Your task to perform on an android device: How much does a 3 bedroom apartment rent for in Seattle? Image 0: 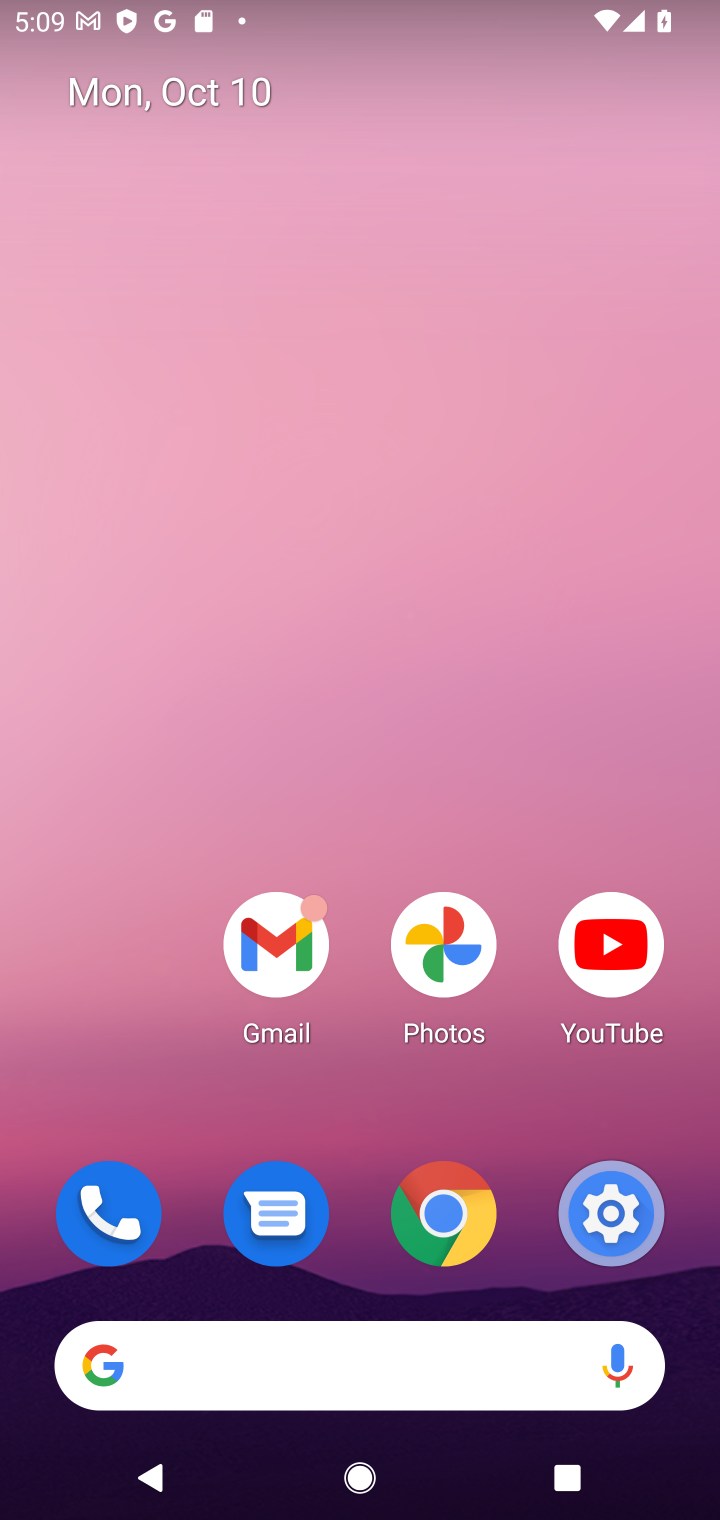
Step 0: click (408, 1368)
Your task to perform on an android device: How much does a 3 bedroom apartment rent for in Seattle? Image 1: 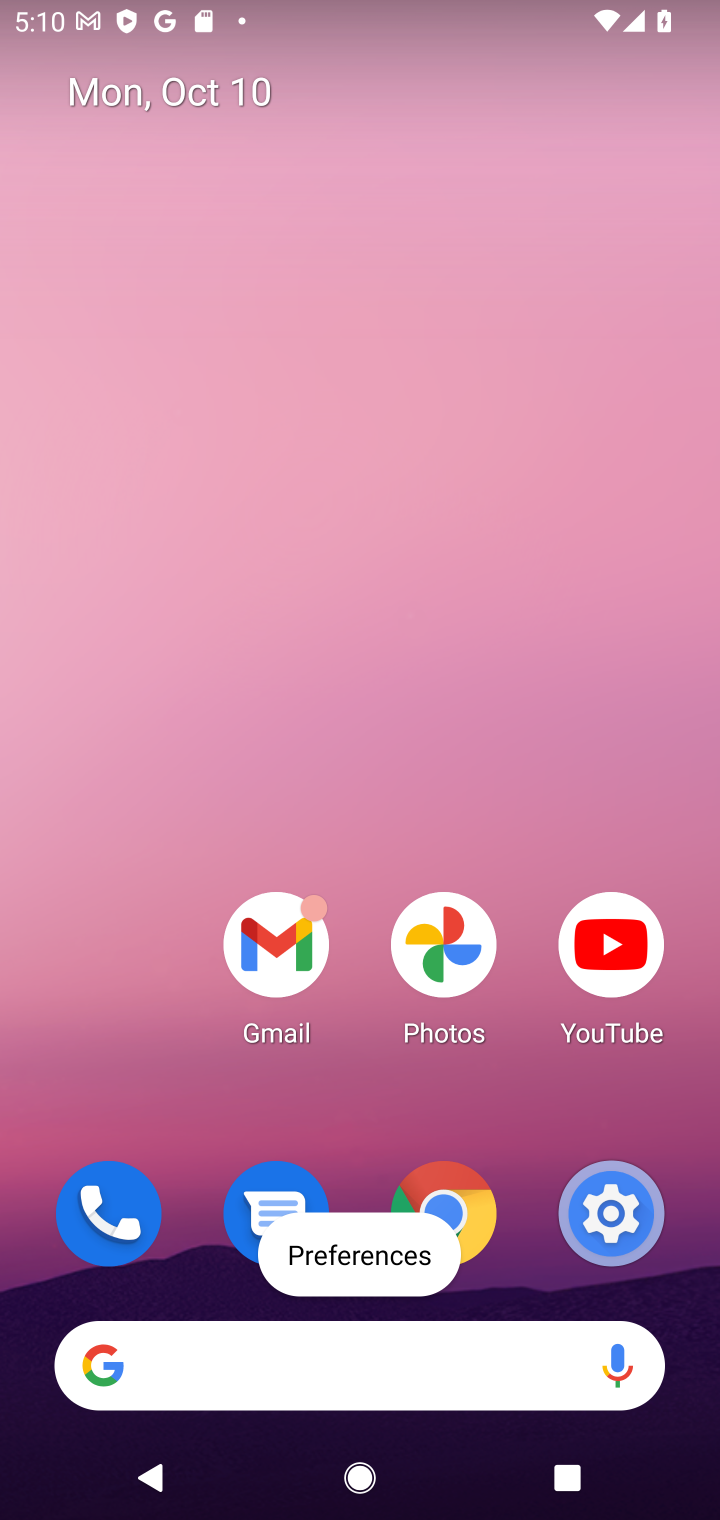
Step 1: type " 3 bedroom apartment rent for in Seattle"
Your task to perform on an android device: How much does a 3 bedroom apartment rent for in Seattle? Image 2: 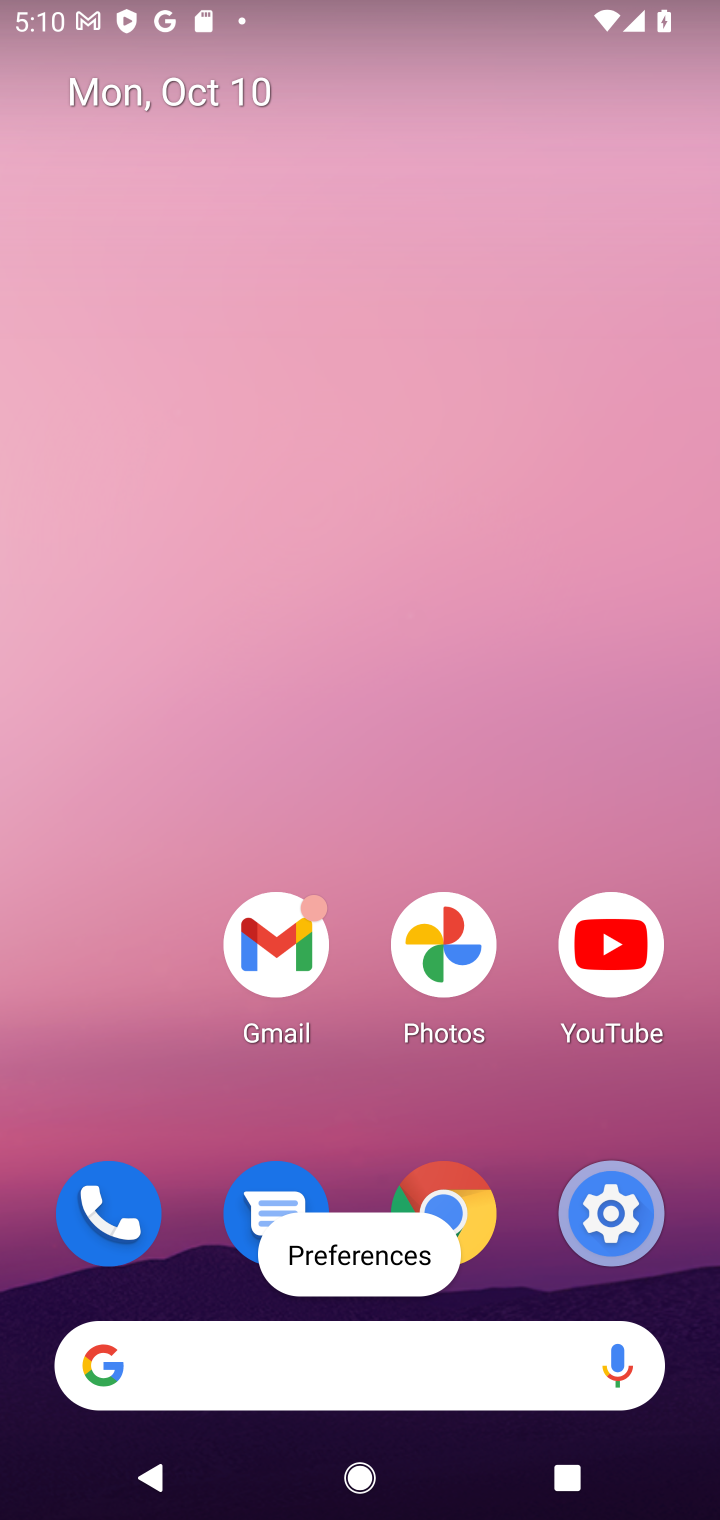
Step 2: click (364, 1376)
Your task to perform on an android device: How much does a 3 bedroom apartment rent for in Seattle? Image 3: 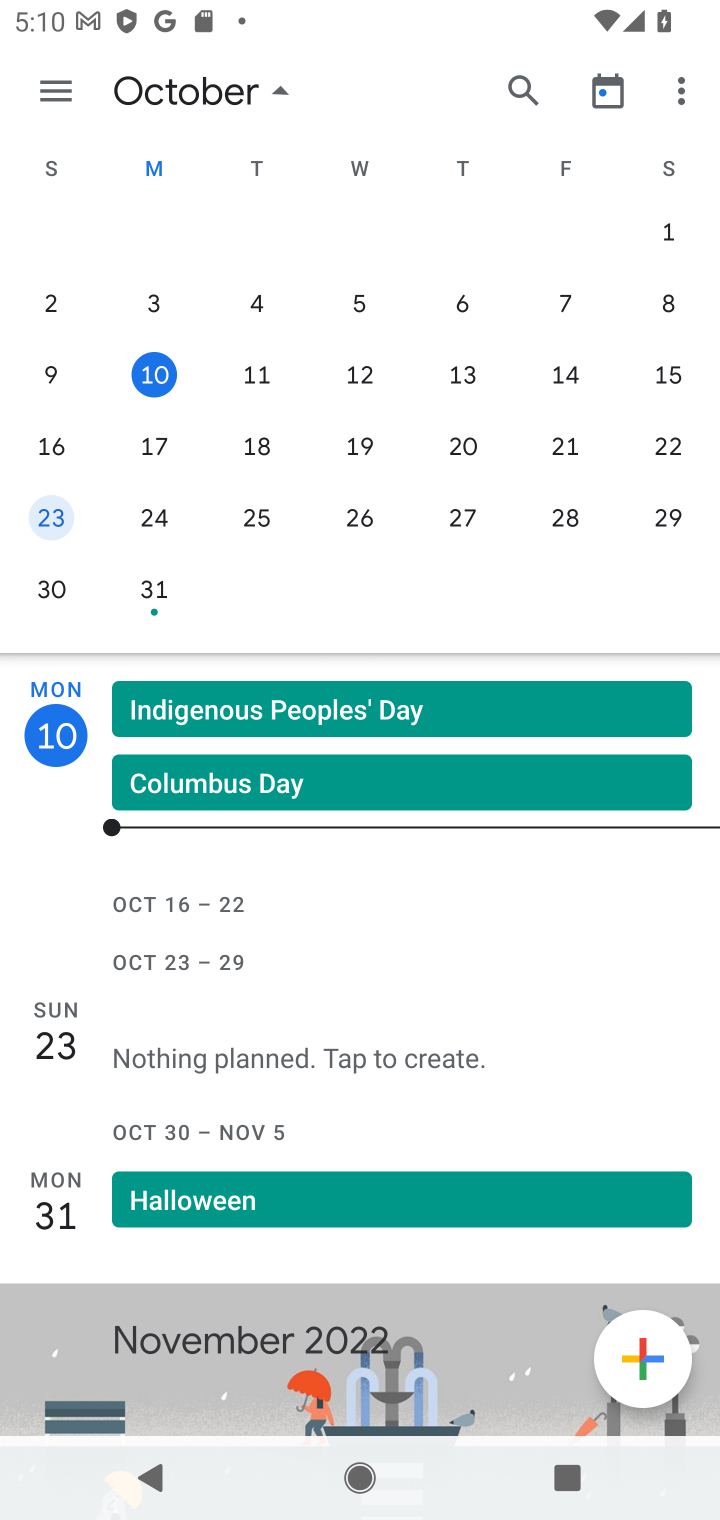
Step 3: press home button
Your task to perform on an android device: How much does a 3 bedroom apartment rent for in Seattle? Image 4: 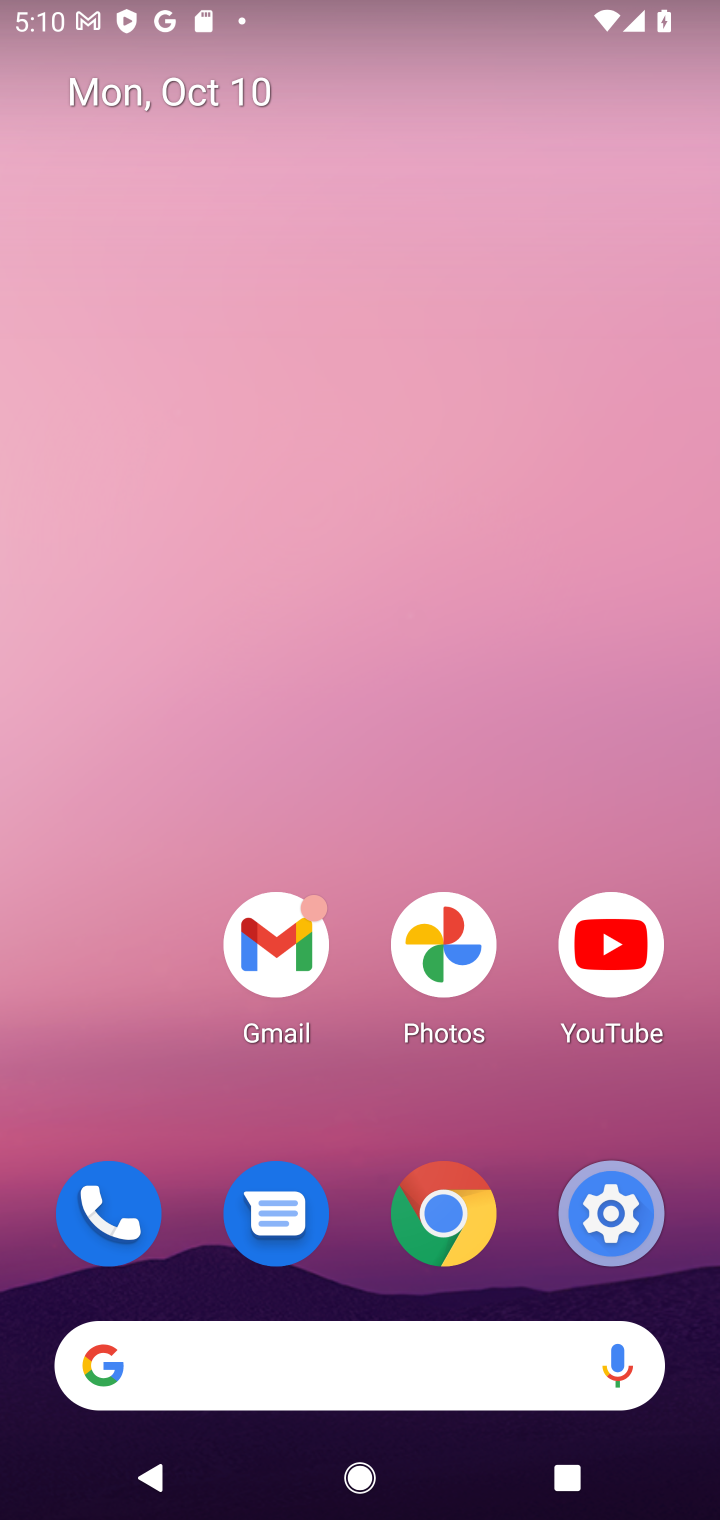
Step 4: click (280, 1375)
Your task to perform on an android device: How much does a 3 bedroom apartment rent for in Seattle? Image 5: 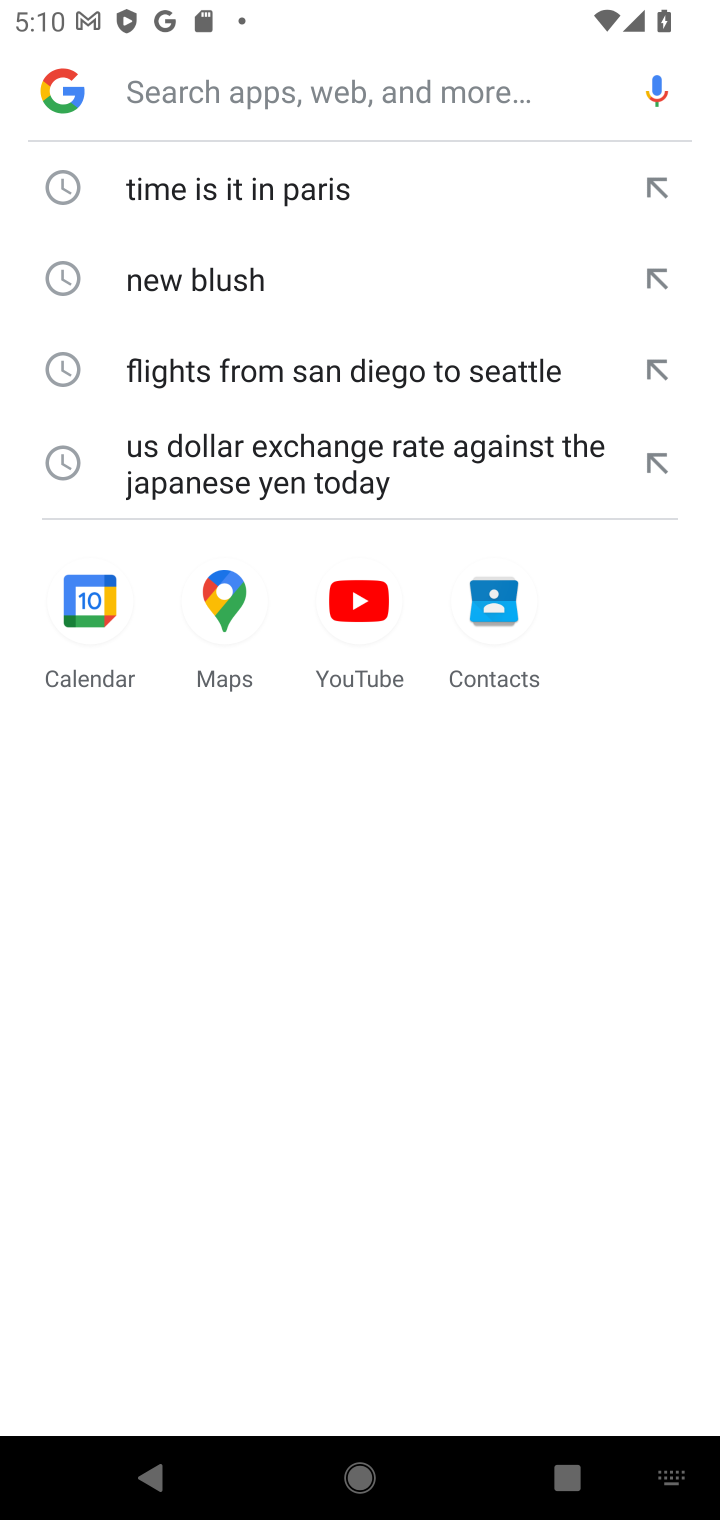
Step 5: type "3 bedroom apartment rent for in Seattle"
Your task to perform on an android device: How much does a 3 bedroom apartment rent for in Seattle? Image 6: 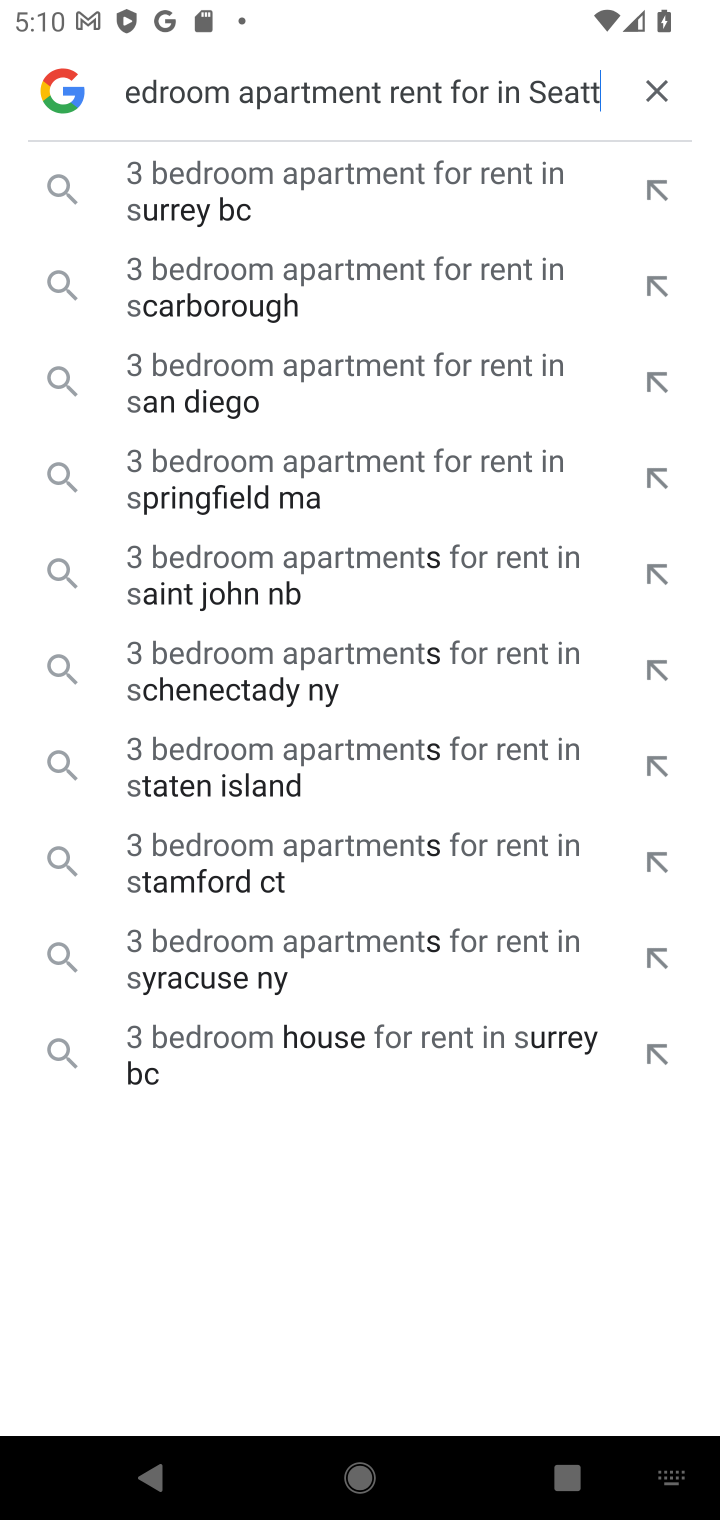
Step 6: type ""
Your task to perform on an android device: How much does a 3 bedroom apartment rent for in Seattle? Image 7: 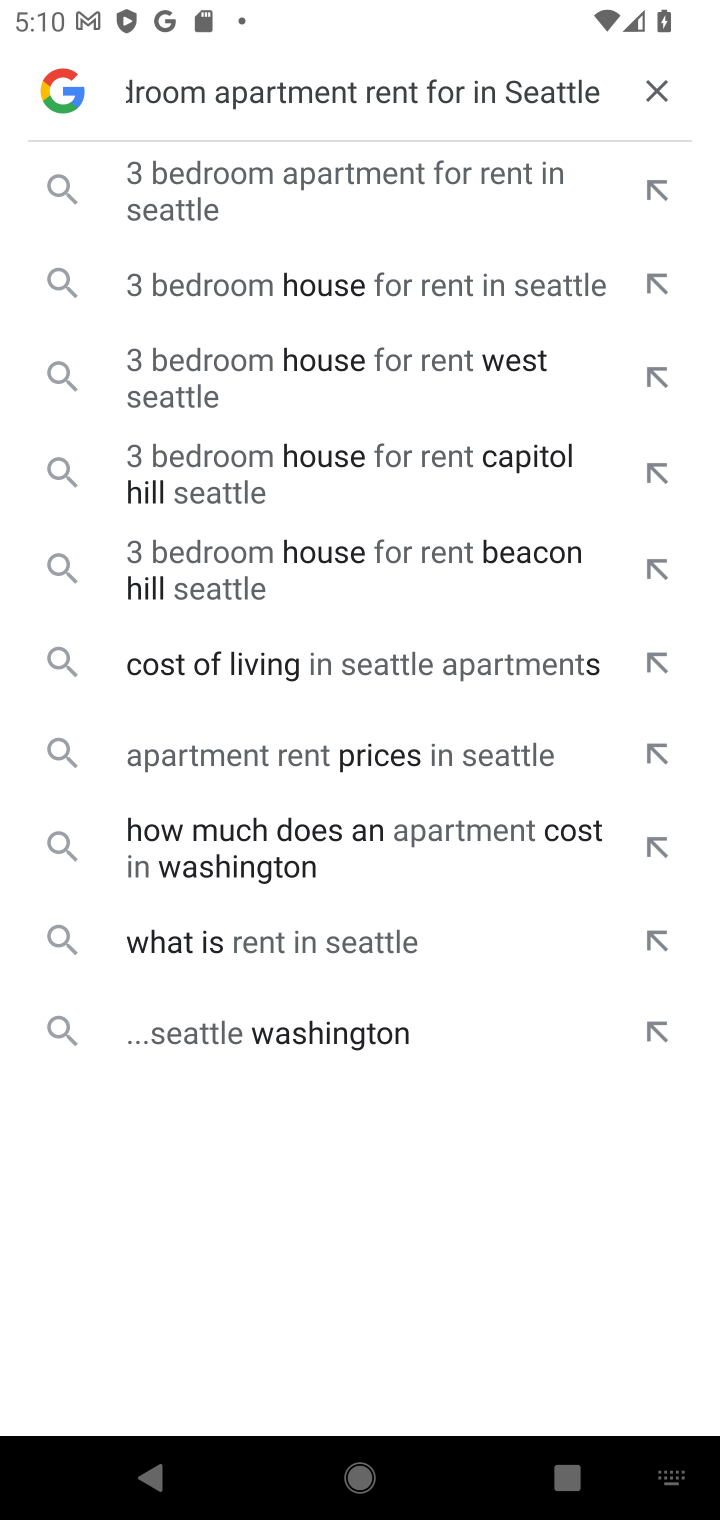
Step 7: click (452, 175)
Your task to perform on an android device: How much does a 3 bedroom apartment rent for in Seattle? Image 8: 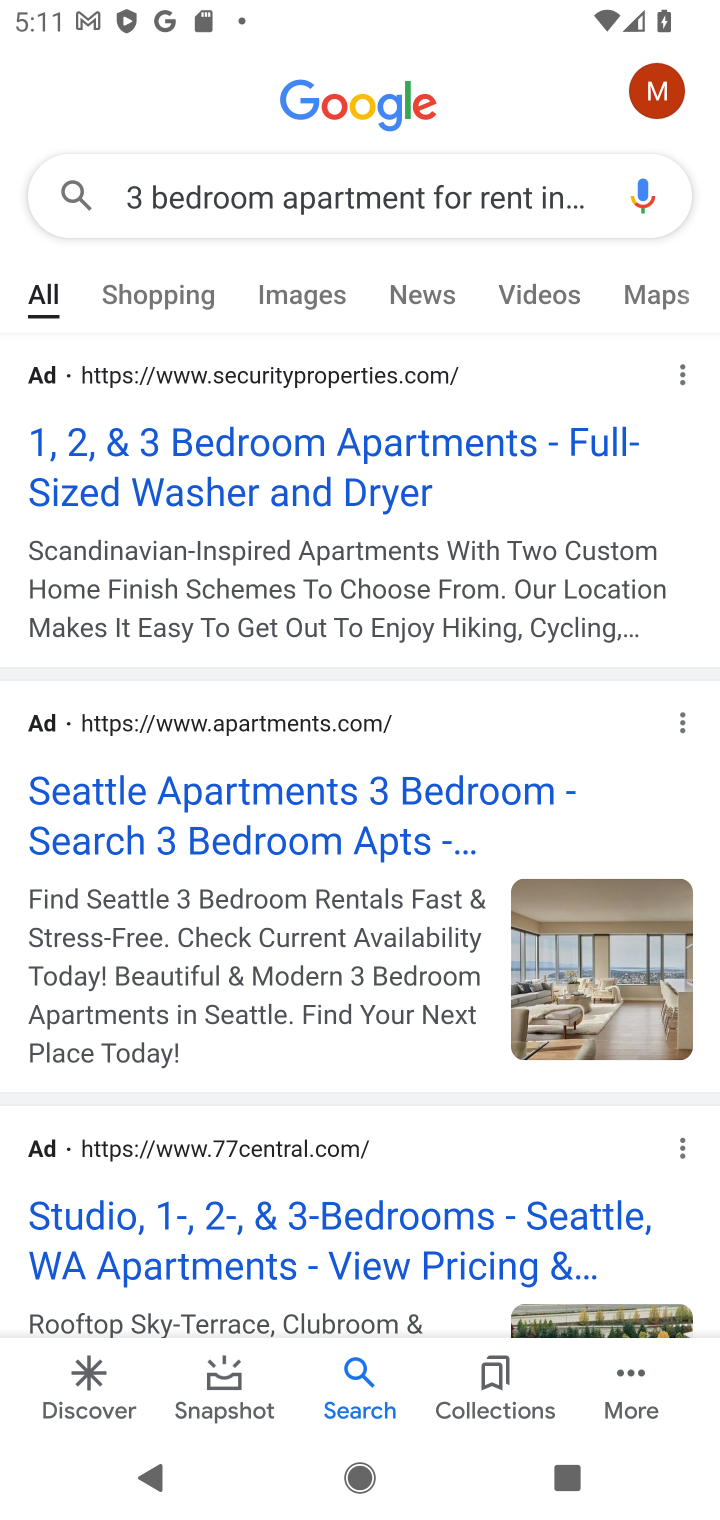
Step 8: drag from (292, 1101) to (321, 725)
Your task to perform on an android device: How much does a 3 bedroom apartment rent for in Seattle? Image 9: 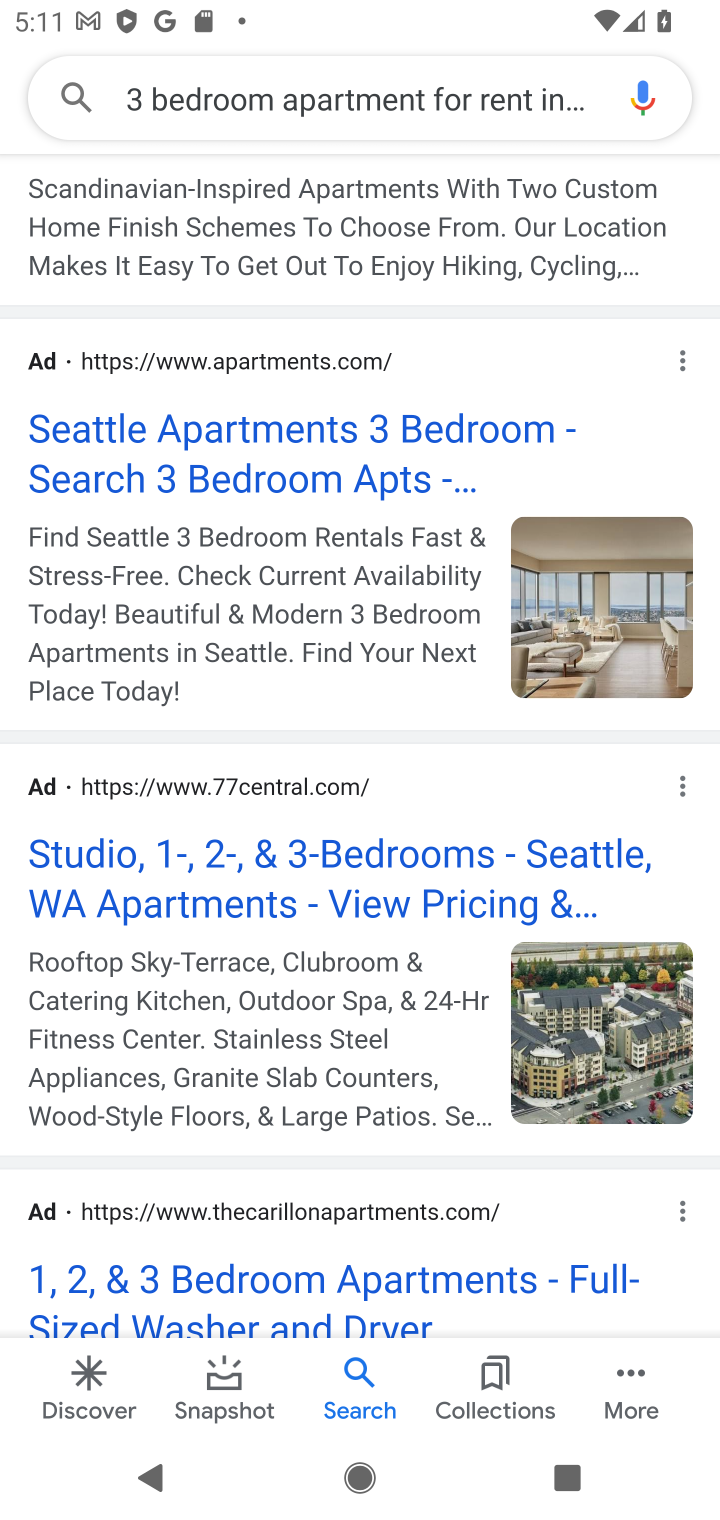
Step 9: drag from (297, 1165) to (359, 631)
Your task to perform on an android device: How much does a 3 bedroom apartment rent for in Seattle? Image 10: 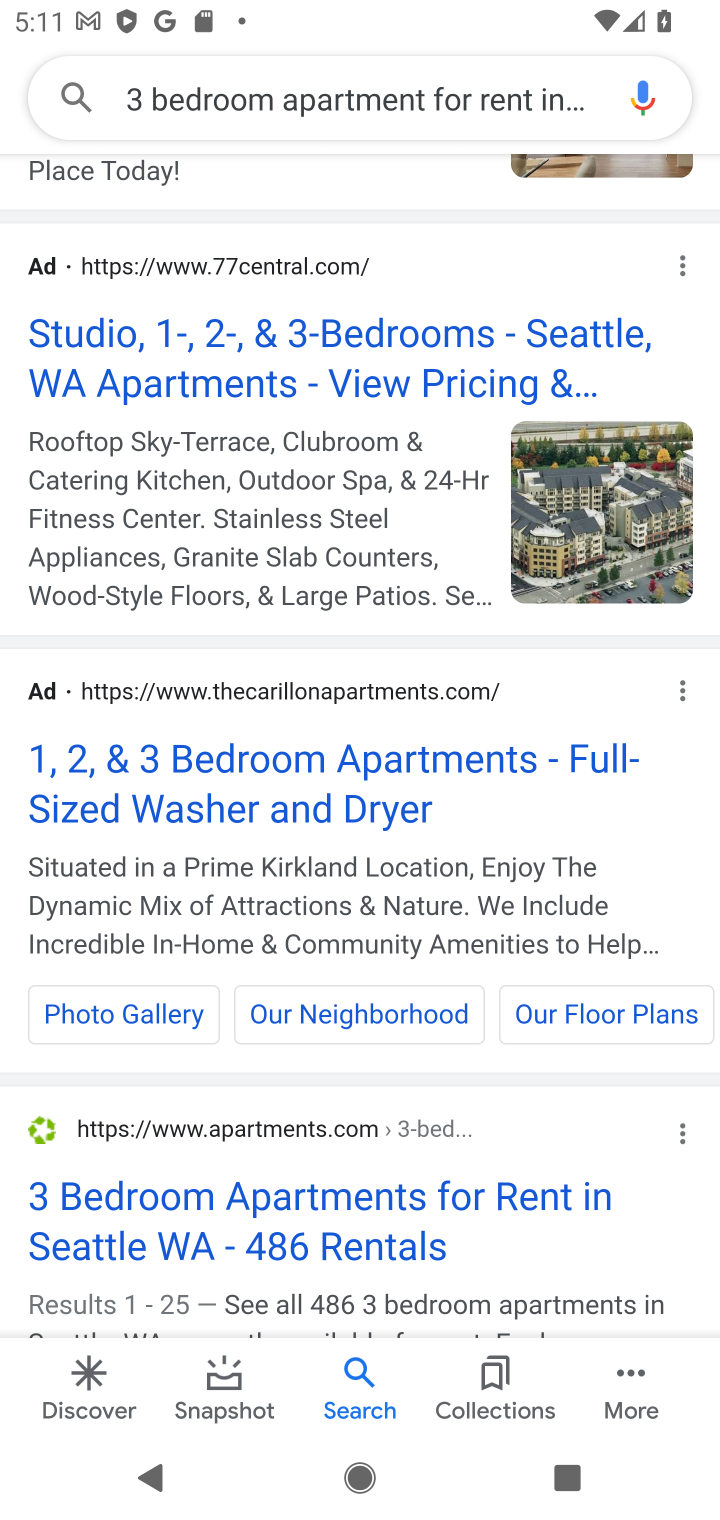
Step 10: drag from (370, 1101) to (402, 735)
Your task to perform on an android device: How much does a 3 bedroom apartment rent for in Seattle? Image 11: 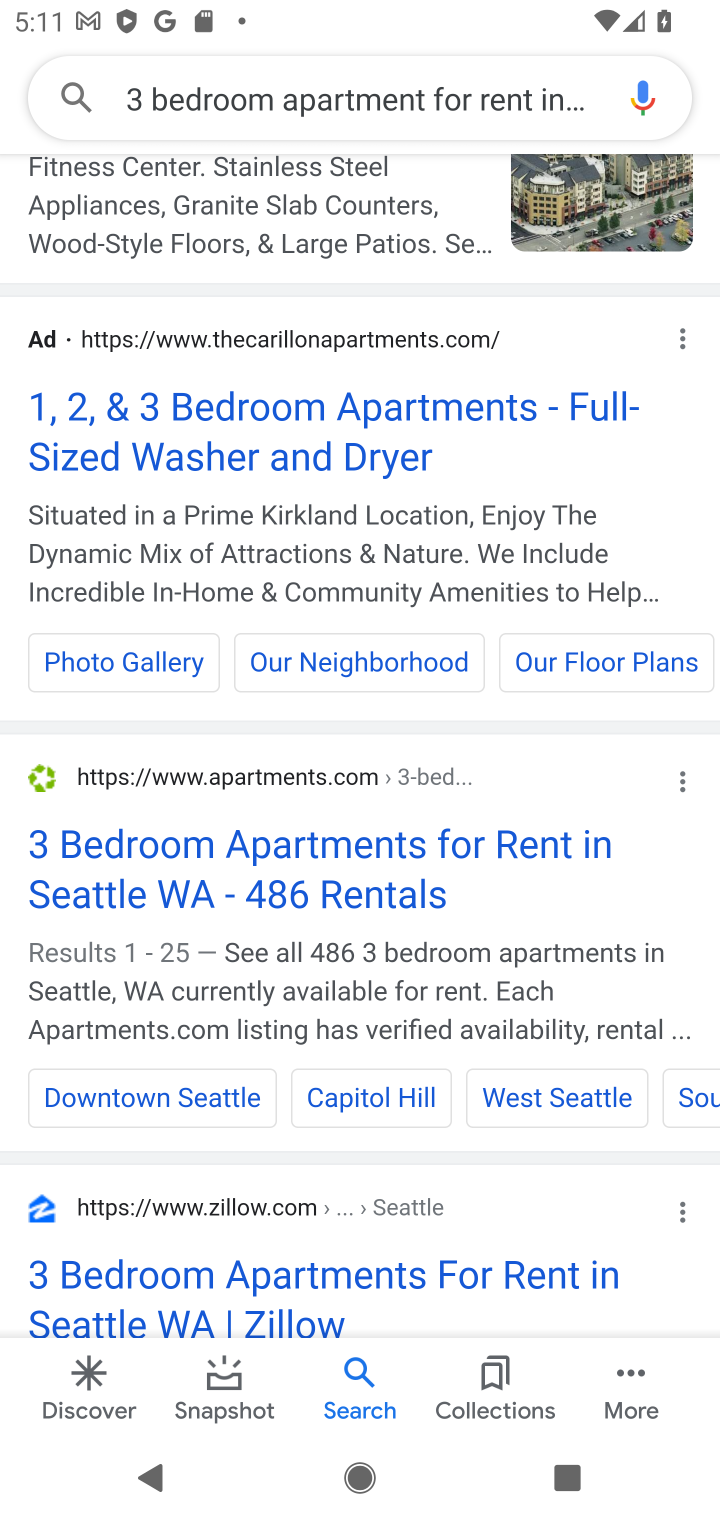
Step 11: click (387, 892)
Your task to perform on an android device: How much does a 3 bedroom apartment rent for in Seattle? Image 12: 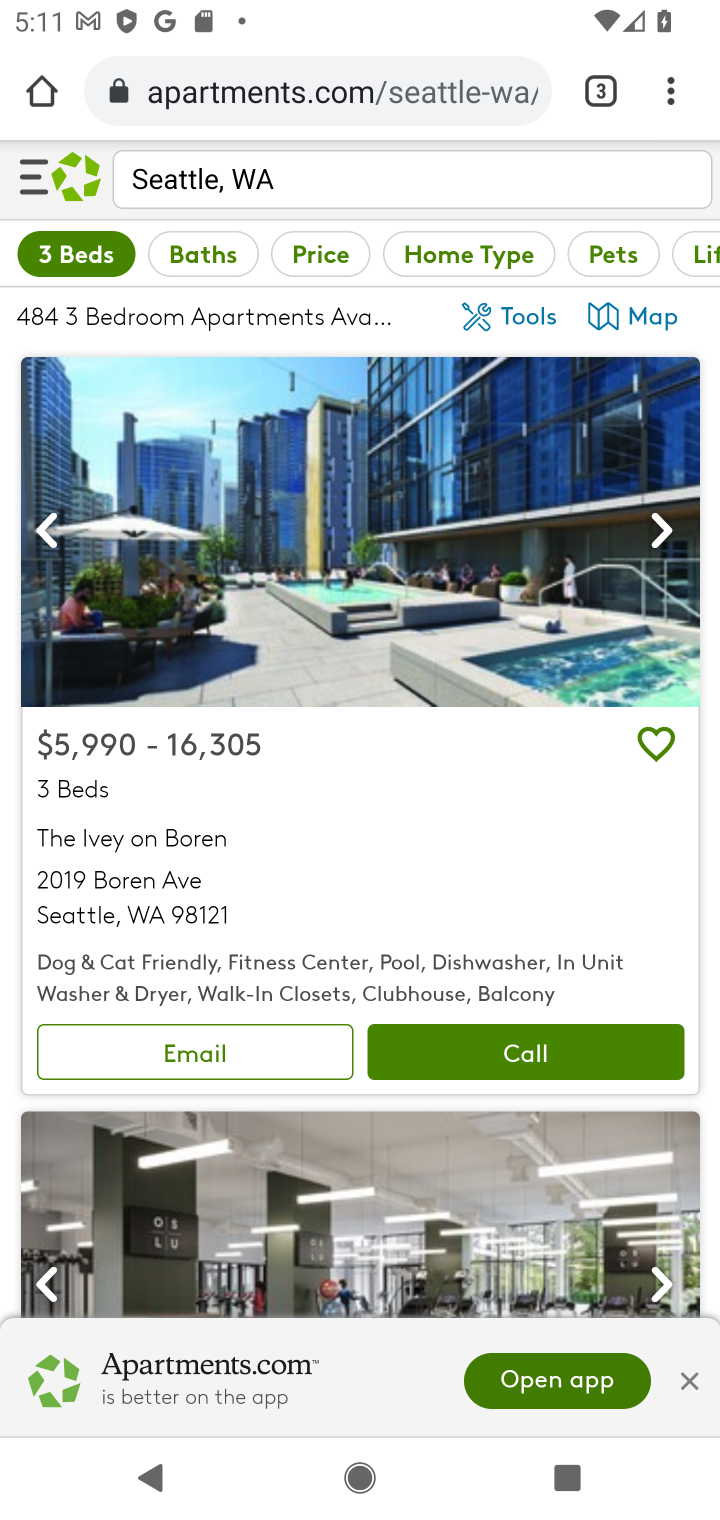
Step 12: task complete